Your task to perform on an android device: check battery use Image 0: 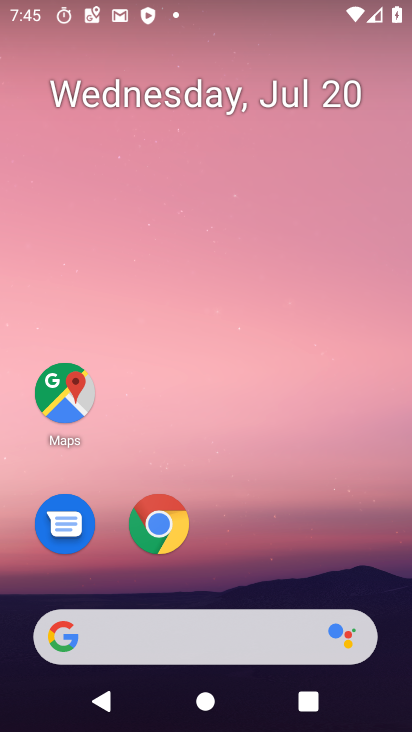
Step 0: drag from (236, 635) to (315, 35)
Your task to perform on an android device: check battery use Image 1: 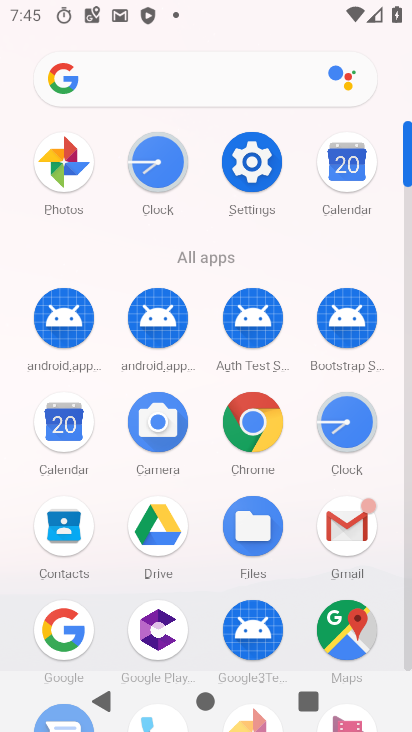
Step 1: click (256, 170)
Your task to perform on an android device: check battery use Image 2: 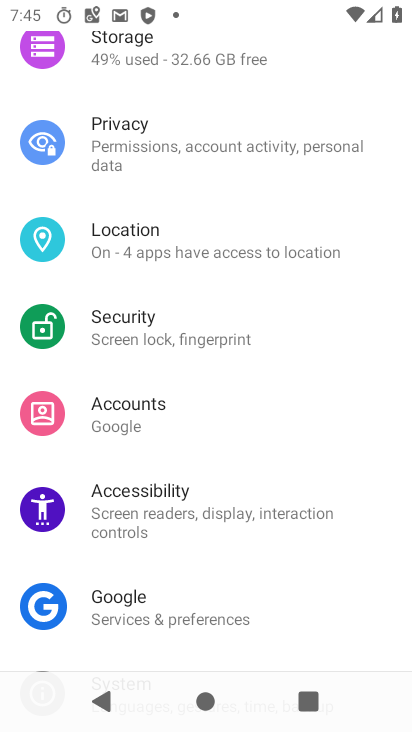
Step 2: drag from (283, 111) to (156, 508)
Your task to perform on an android device: check battery use Image 3: 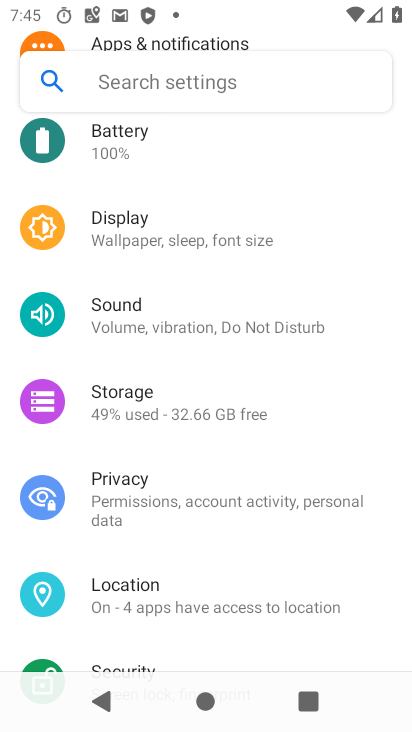
Step 3: click (122, 143)
Your task to perform on an android device: check battery use Image 4: 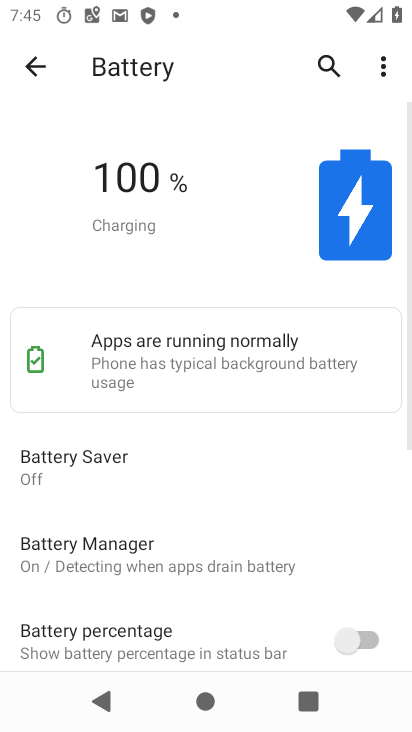
Step 4: click (383, 61)
Your task to perform on an android device: check battery use Image 5: 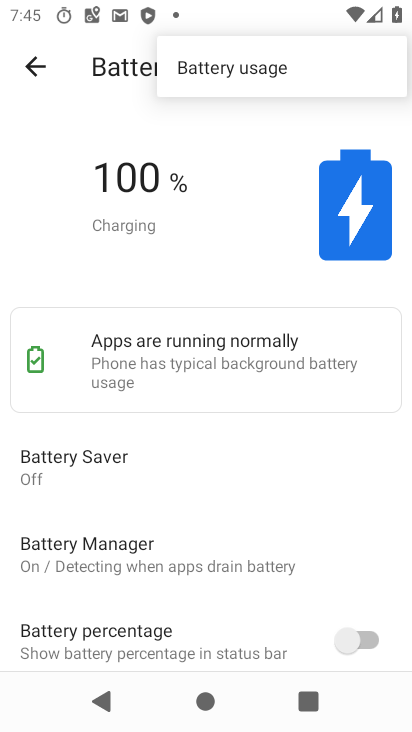
Step 5: click (266, 75)
Your task to perform on an android device: check battery use Image 6: 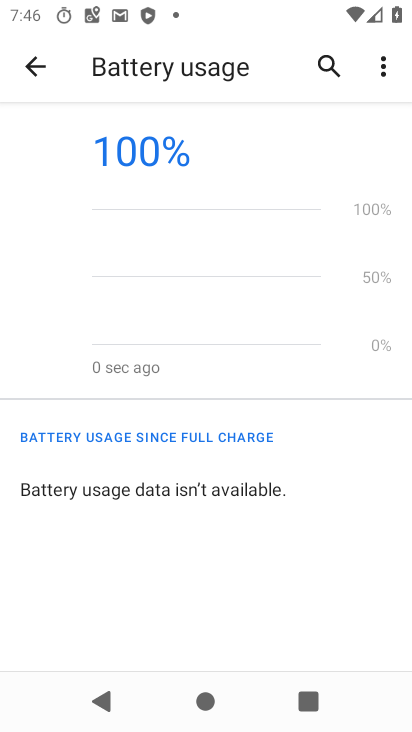
Step 6: task complete